Your task to perform on an android device: delete the emails in spam in the gmail app Image 0: 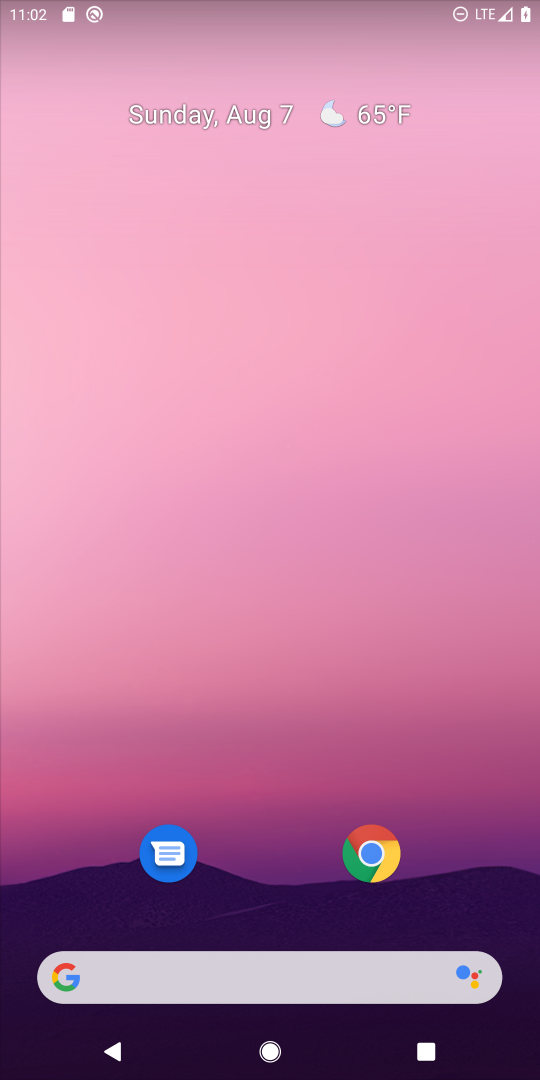
Step 0: click (211, 62)
Your task to perform on an android device: delete the emails in spam in the gmail app Image 1: 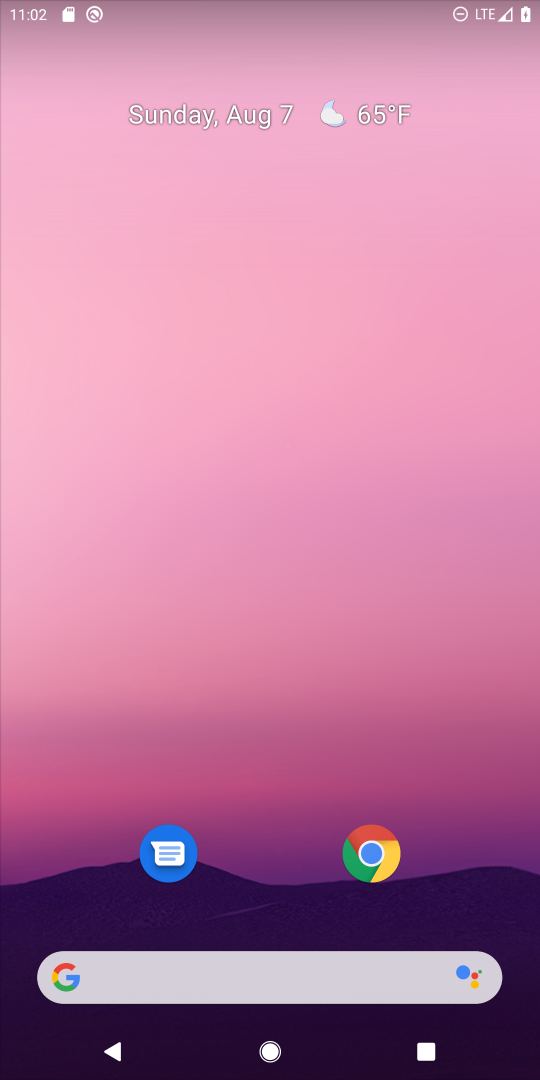
Step 1: drag from (201, 883) to (205, 311)
Your task to perform on an android device: delete the emails in spam in the gmail app Image 2: 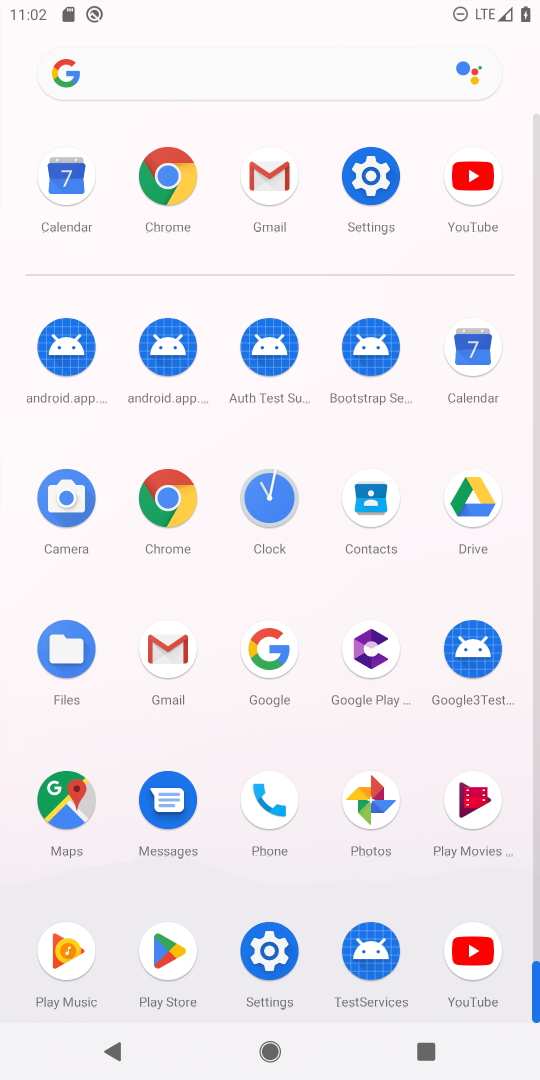
Step 2: click (159, 644)
Your task to perform on an android device: delete the emails in spam in the gmail app Image 3: 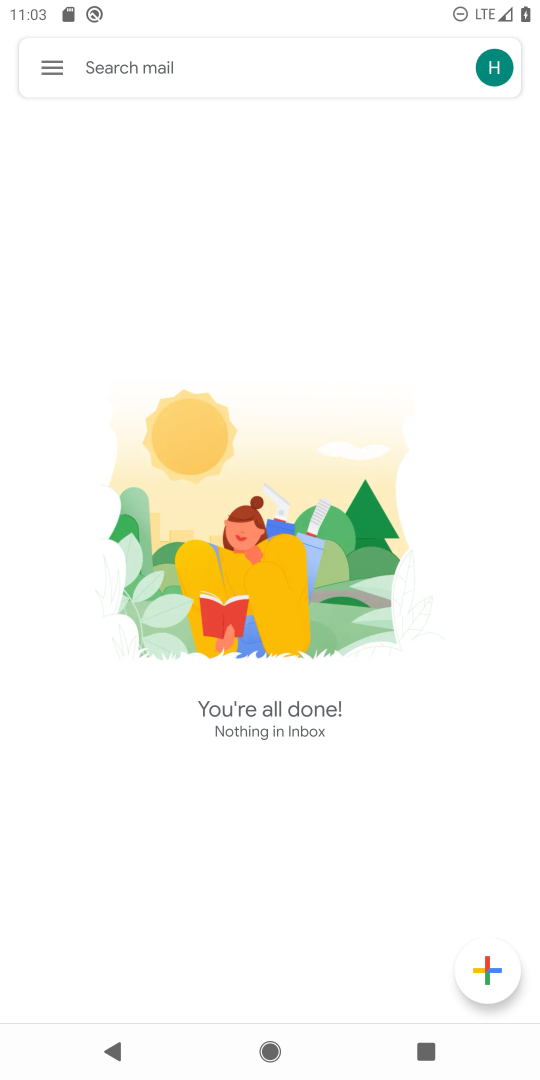
Step 3: click (66, 59)
Your task to perform on an android device: delete the emails in spam in the gmail app Image 4: 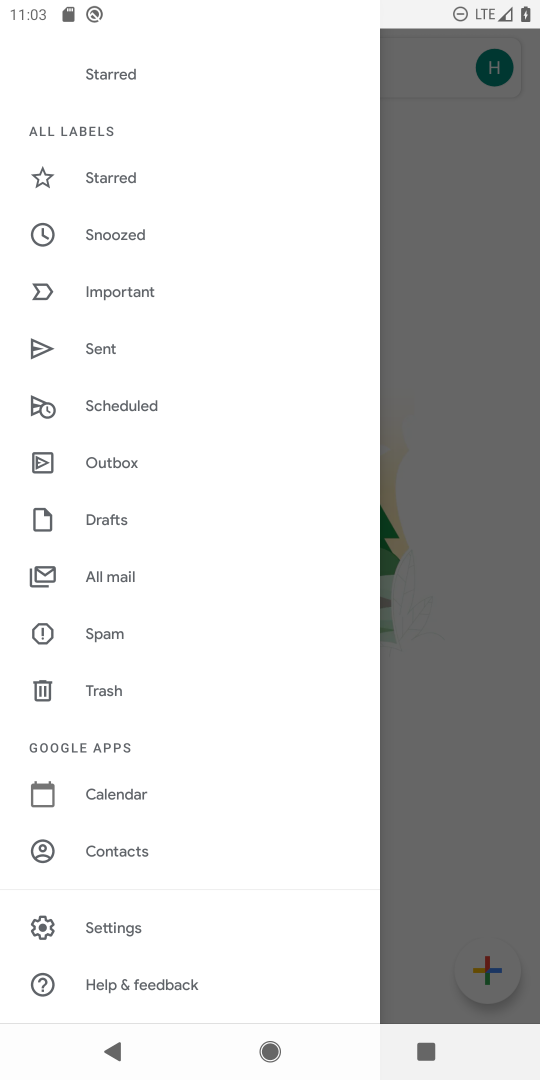
Step 4: click (109, 638)
Your task to perform on an android device: delete the emails in spam in the gmail app Image 5: 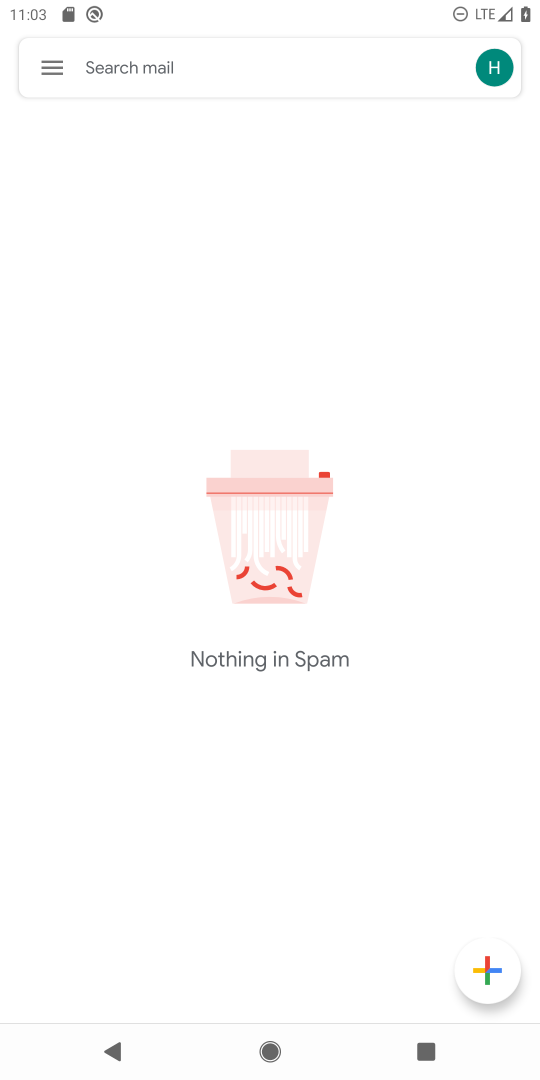
Step 5: task complete